Your task to perform on an android device: Show me popular videos on Youtube Image 0: 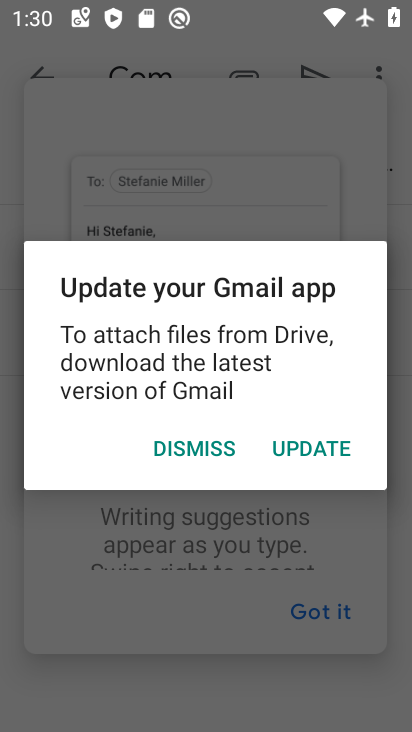
Step 0: press home button
Your task to perform on an android device: Show me popular videos on Youtube Image 1: 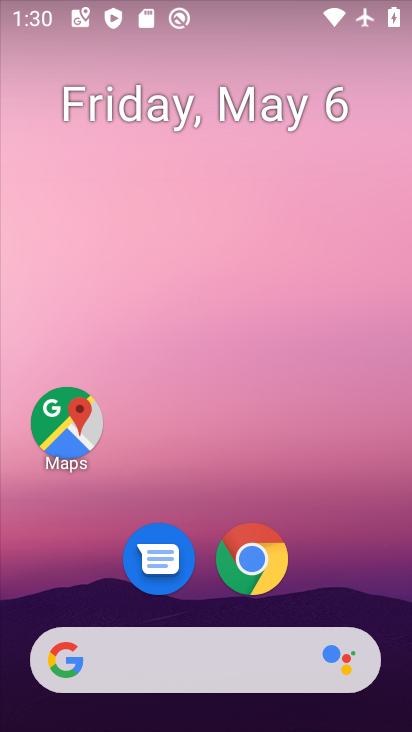
Step 1: drag from (199, 678) to (327, 182)
Your task to perform on an android device: Show me popular videos on Youtube Image 2: 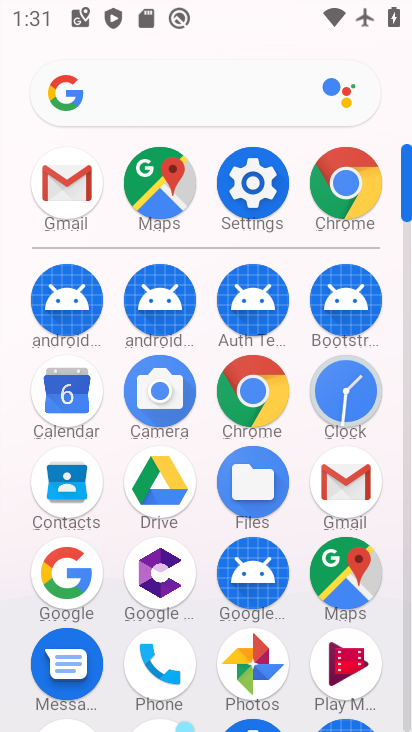
Step 2: drag from (199, 661) to (267, 375)
Your task to perform on an android device: Show me popular videos on Youtube Image 3: 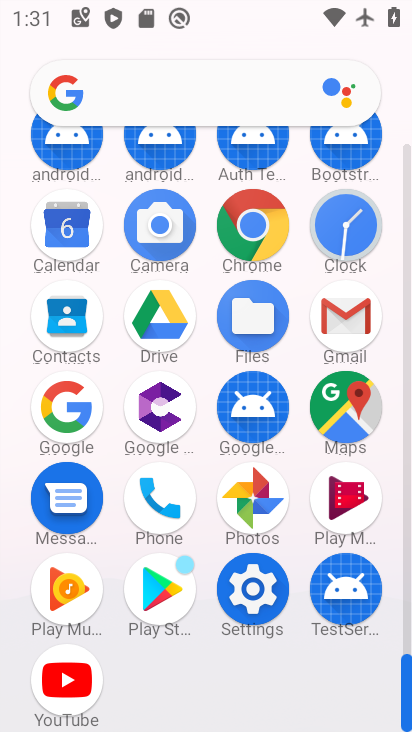
Step 3: click (72, 686)
Your task to perform on an android device: Show me popular videos on Youtube Image 4: 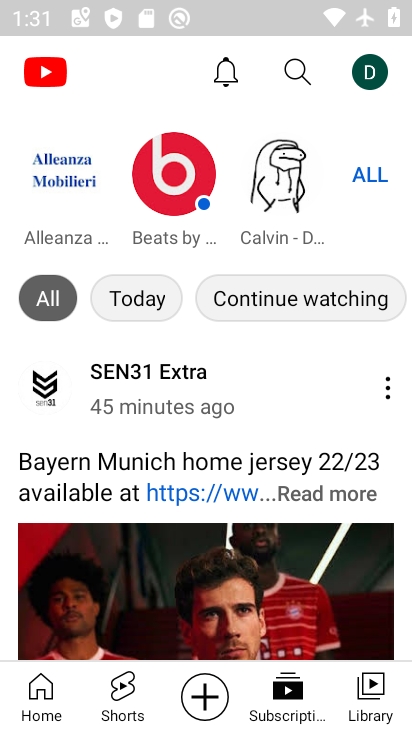
Step 4: click (44, 695)
Your task to perform on an android device: Show me popular videos on Youtube Image 5: 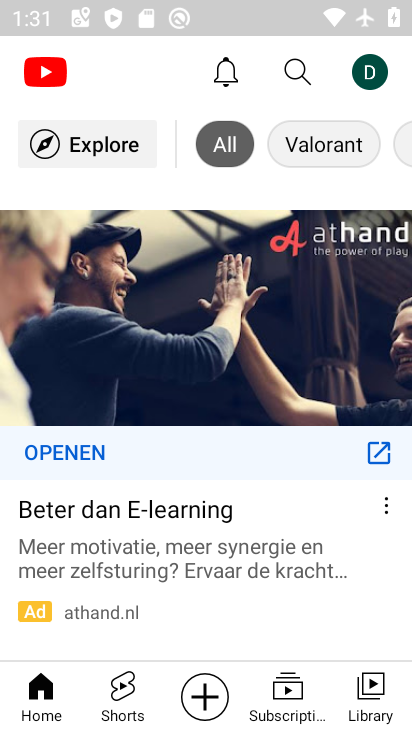
Step 5: task complete